Your task to perform on an android device: toggle notification dots Image 0: 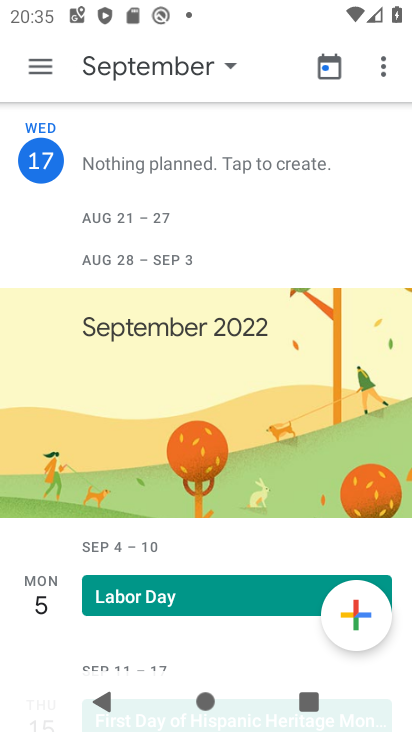
Step 0: press home button
Your task to perform on an android device: toggle notification dots Image 1: 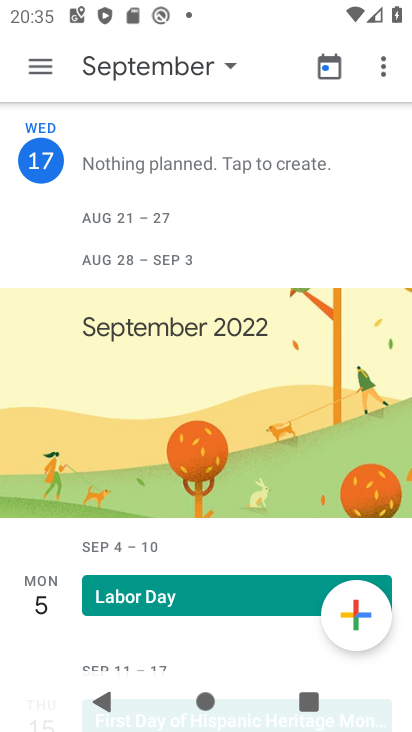
Step 1: press home button
Your task to perform on an android device: toggle notification dots Image 2: 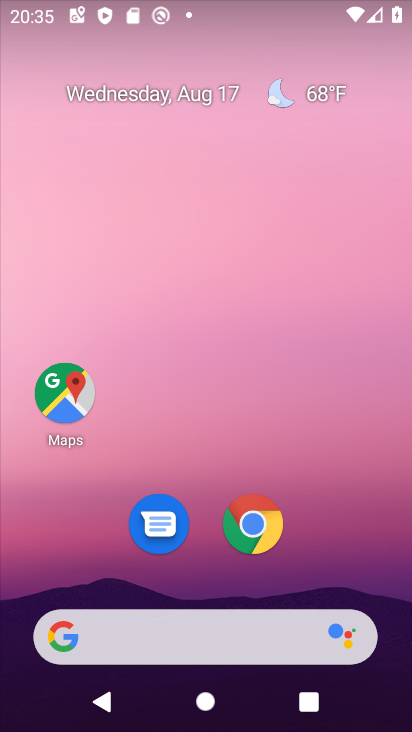
Step 2: drag from (310, 546) to (334, 29)
Your task to perform on an android device: toggle notification dots Image 3: 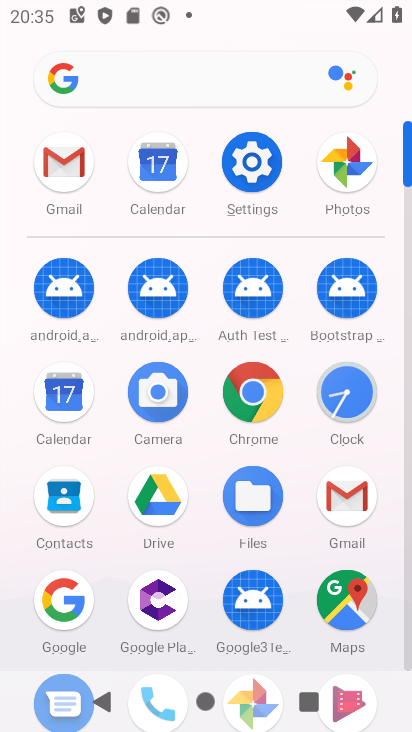
Step 3: click (256, 150)
Your task to perform on an android device: toggle notification dots Image 4: 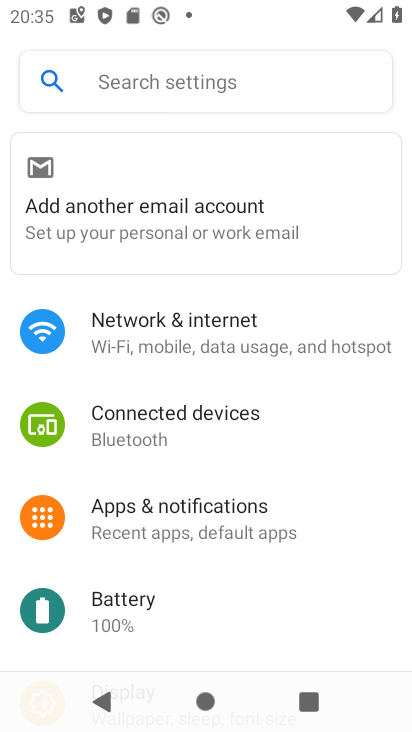
Step 4: click (237, 520)
Your task to perform on an android device: toggle notification dots Image 5: 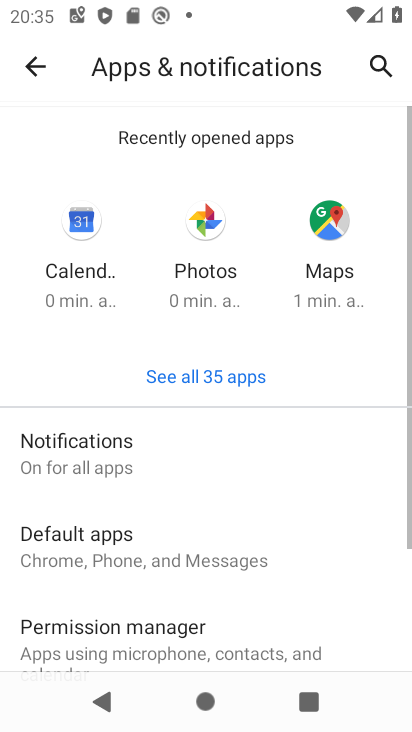
Step 5: click (118, 460)
Your task to perform on an android device: toggle notification dots Image 6: 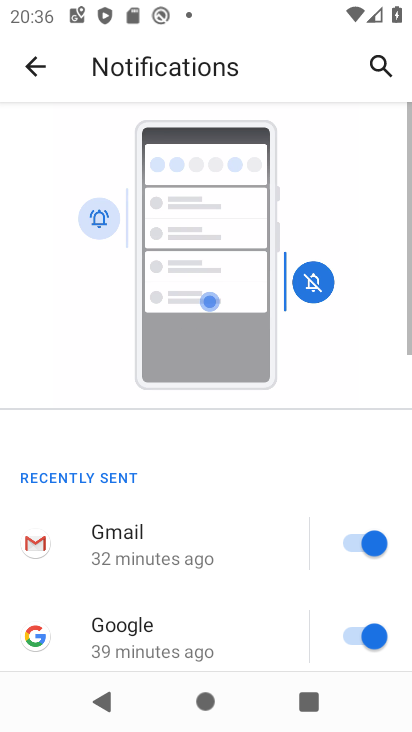
Step 6: drag from (226, 477) to (269, 0)
Your task to perform on an android device: toggle notification dots Image 7: 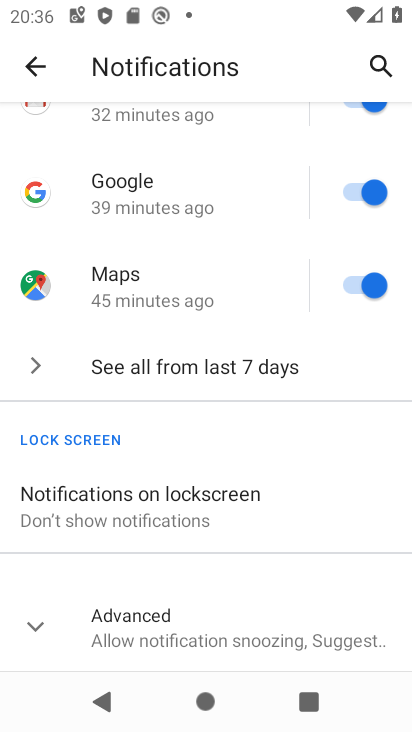
Step 7: click (33, 619)
Your task to perform on an android device: toggle notification dots Image 8: 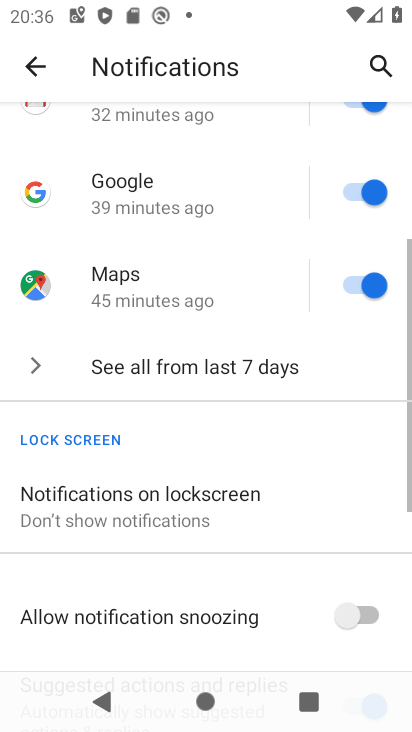
Step 8: drag from (229, 478) to (255, 0)
Your task to perform on an android device: toggle notification dots Image 9: 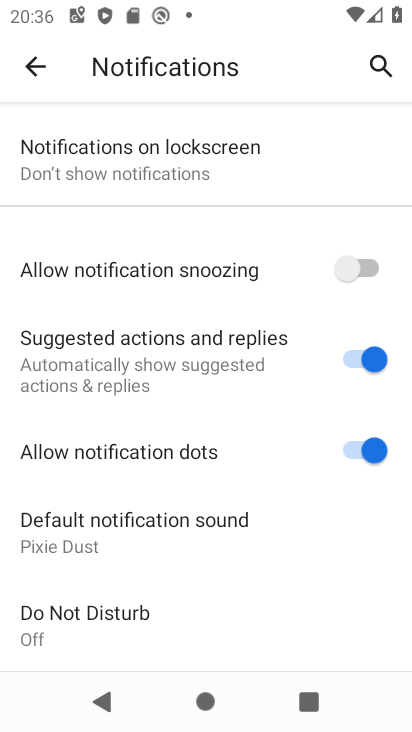
Step 9: click (365, 452)
Your task to perform on an android device: toggle notification dots Image 10: 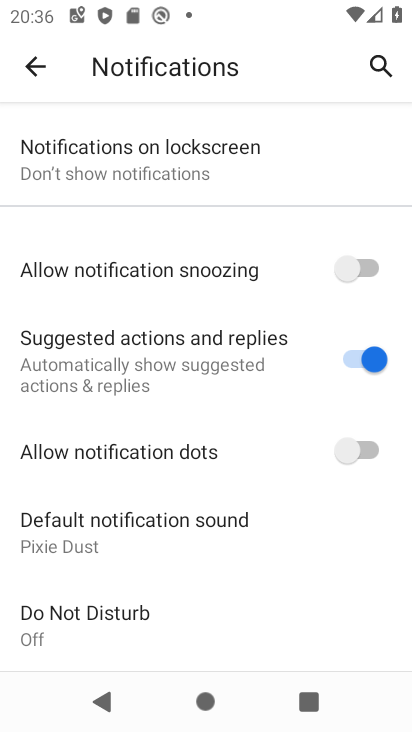
Step 10: task complete